Your task to perform on an android device: What's the weather? Image 0: 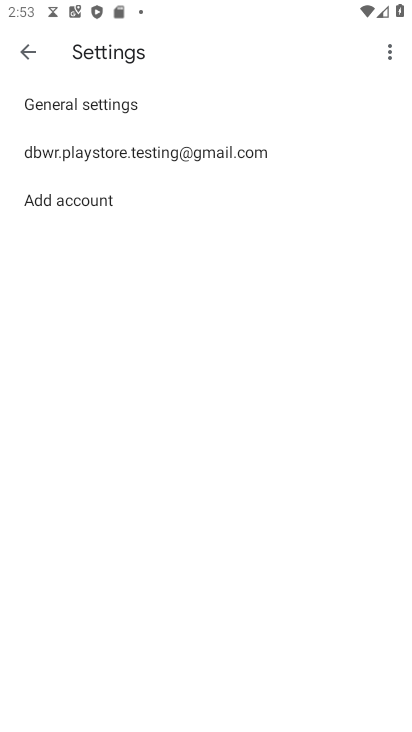
Step 0: press home button
Your task to perform on an android device: What's the weather? Image 1: 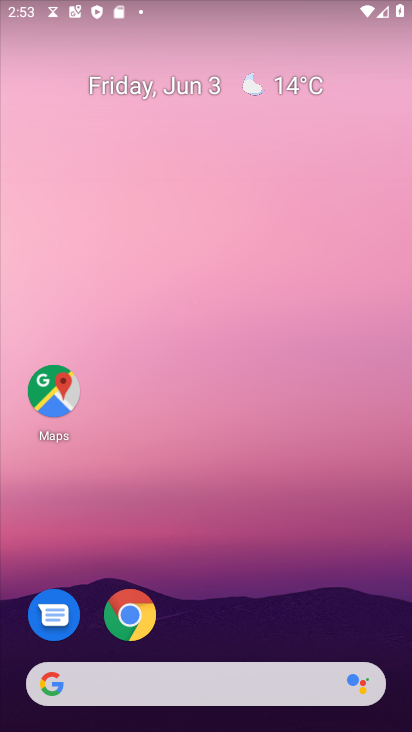
Step 1: click (58, 691)
Your task to perform on an android device: What's the weather? Image 2: 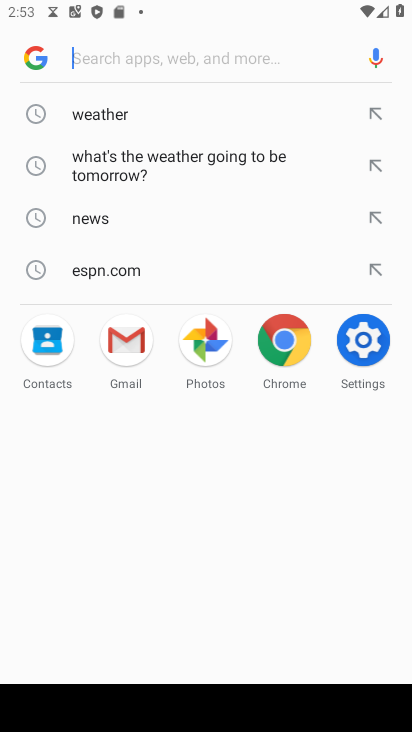
Step 2: click (103, 111)
Your task to perform on an android device: What's the weather? Image 3: 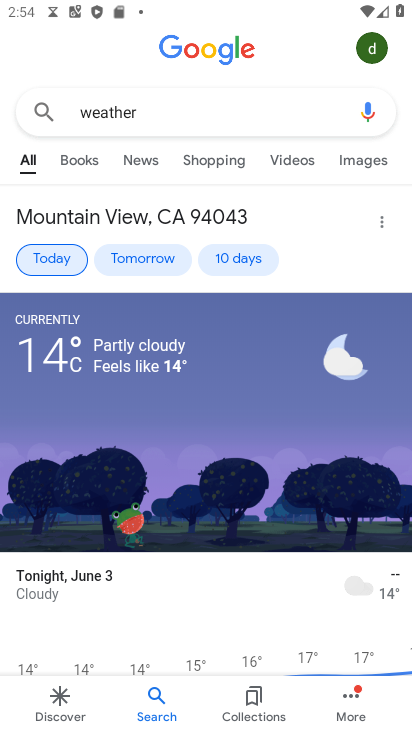
Step 3: task complete